Your task to perform on an android device: Open display settings Image 0: 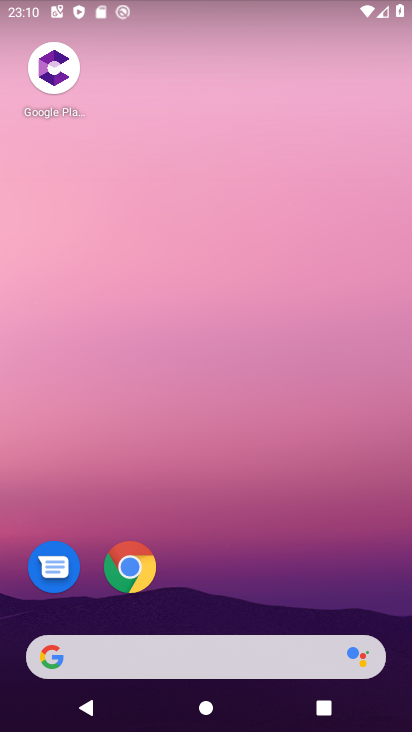
Step 0: drag from (256, 388) to (226, 41)
Your task to perform on an android device: Open display settings Image 1: 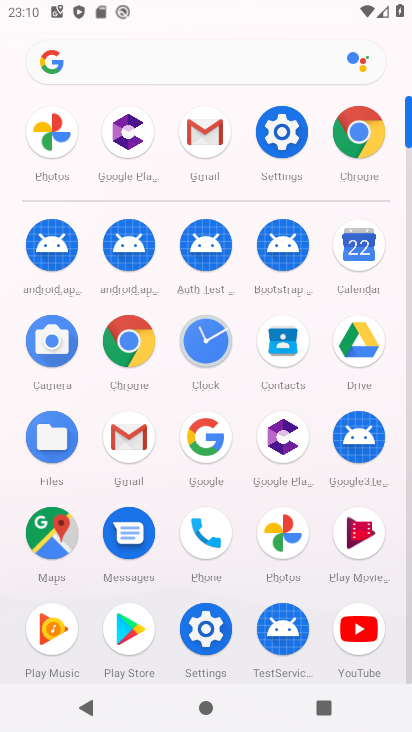
Step 1: click (203, 626)
Your task to perform on an android device: Open display settings Image 2: 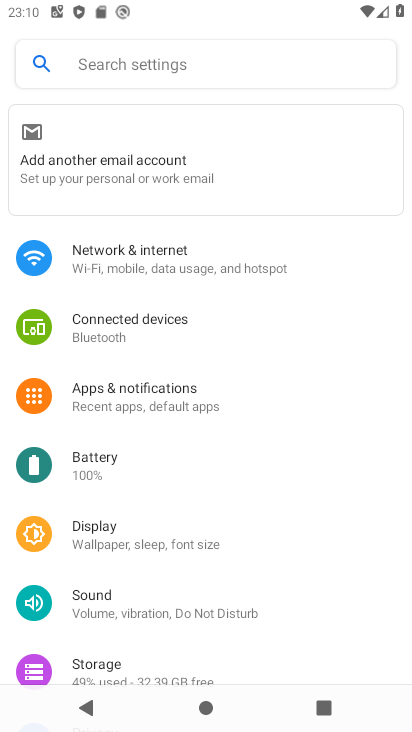
Step 2: drag from (290, 553) to (328, 156)
Your task to perform on an android device: Open display settings Image 3: 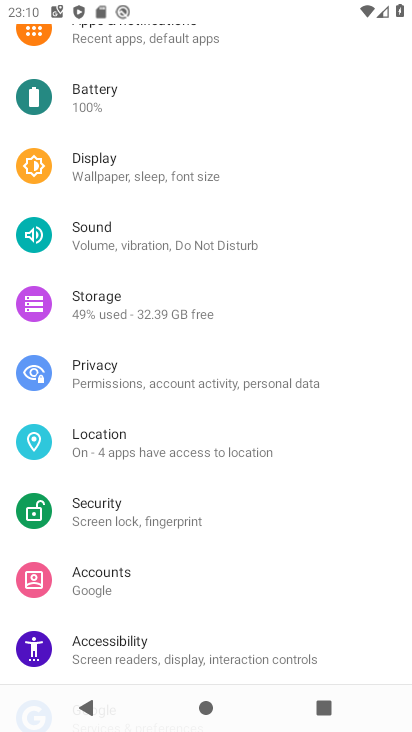
Step 3: click (134, 160)
Your task to perform on an android device: Open display settings Image 4: 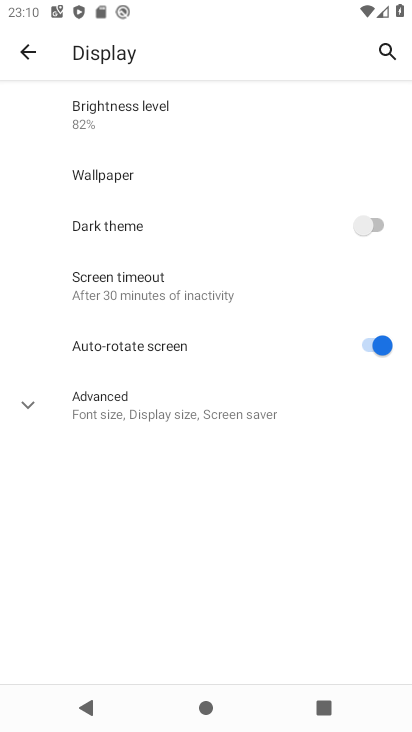
Step 4: click (37, 427)
Your task to perform on an android device: Open display settings Image 5: 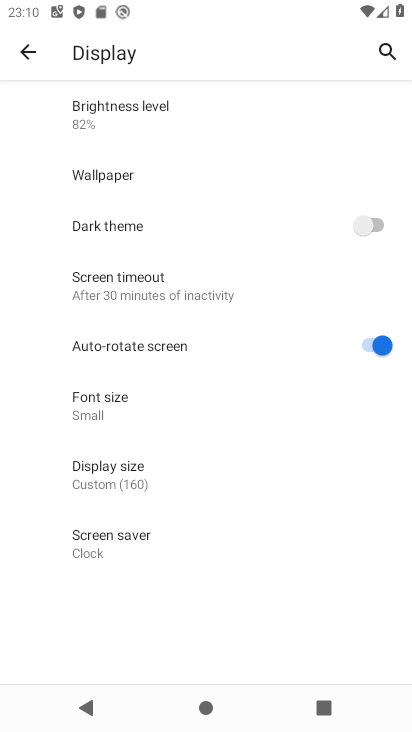
Step 5: task complete